Your task to perform on an android device: check data usage Image 0: 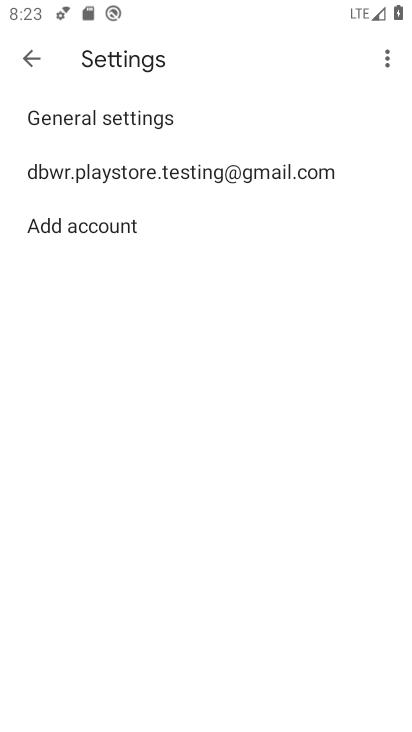
Step 0: press back button
Your task to perform on an android device: check data usage Image 1: 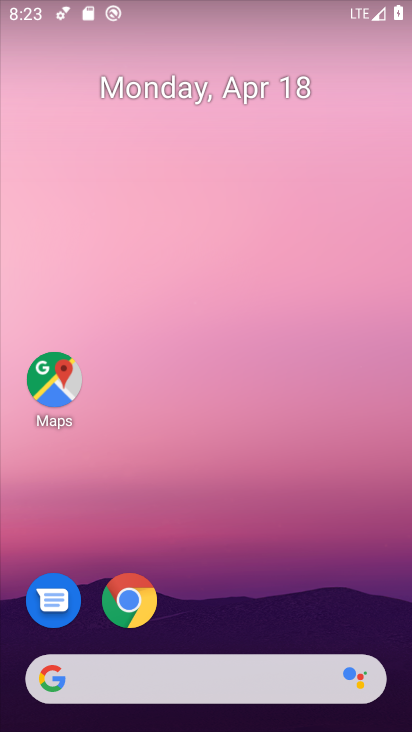
Step 1: drag from (272, 434) to (175, 62)
Your task to perform on an android device: check data usage Image 2: 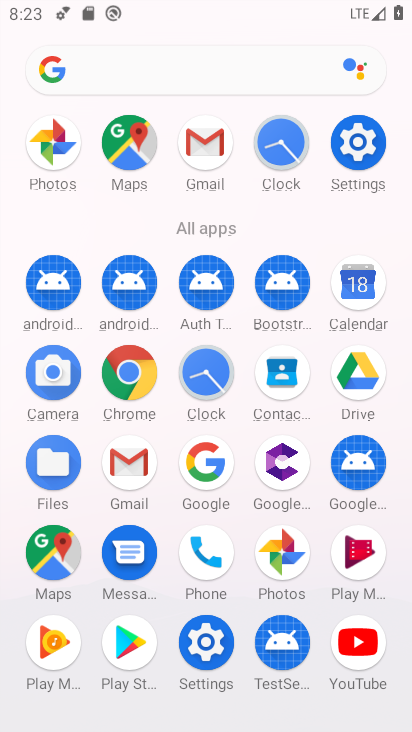
Step 2: click (209, 639)
Your task to perform on an android device: check data usage Image 3: 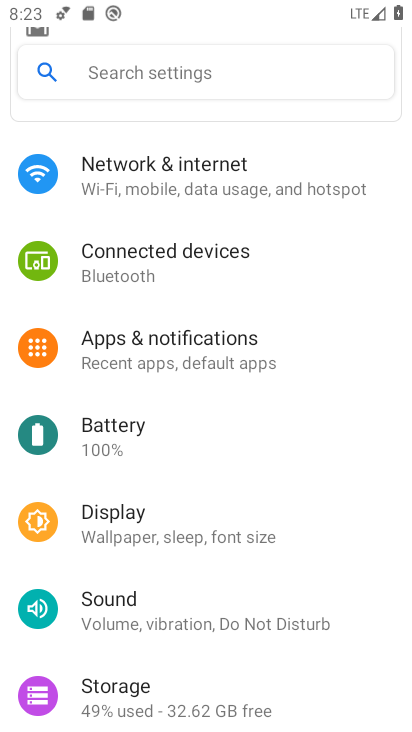
Step 3: click (198, 174)
Your task to perform on an android device: check data usage Image 4: 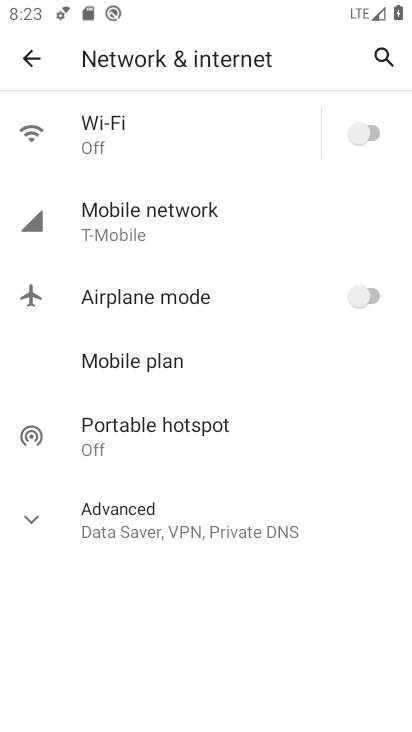
Step 4: click (198, 226)
Your task to perform on an android device: check data usage Image 5: 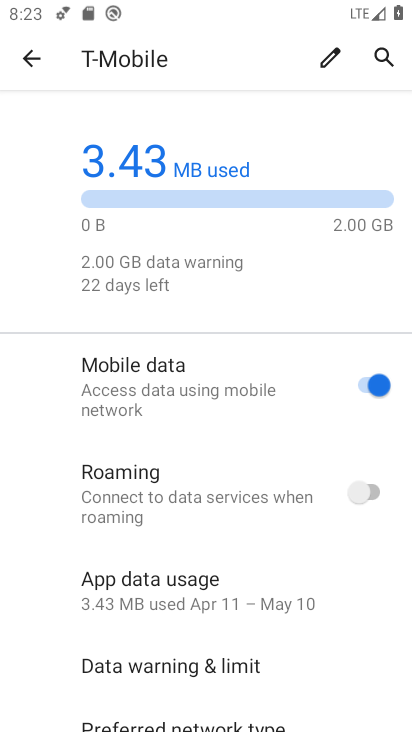
Step 5: task complete